Your task to perform on an android device: check storage Image 0: 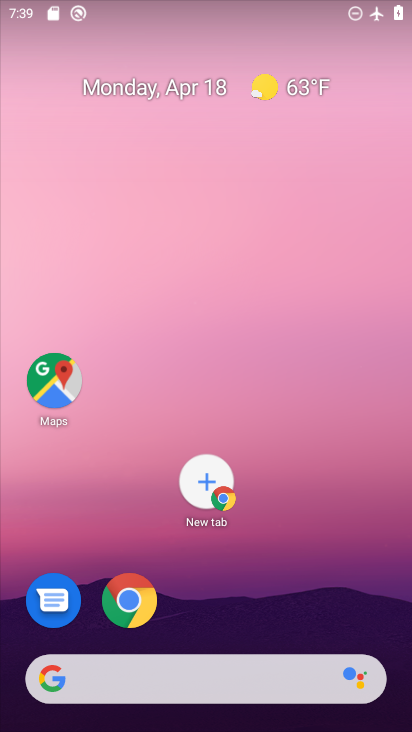
Step 0: drag from (310, 588) to (181, 12)
Your task to perform on an android device: check storage Image 1: 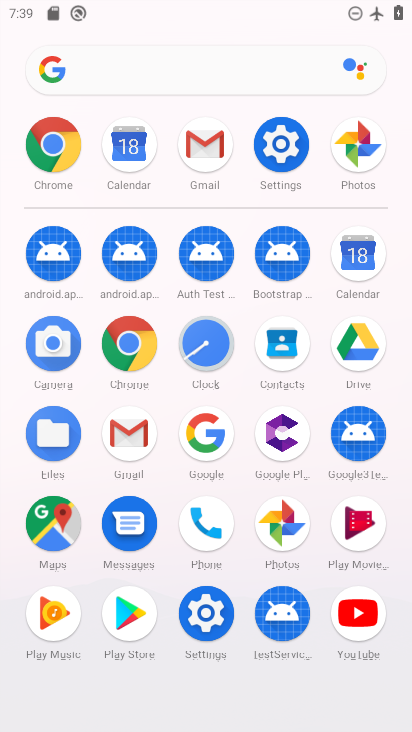
Step 1: click (283, 150)
Your task to perform on an android device: check storage Image 2: 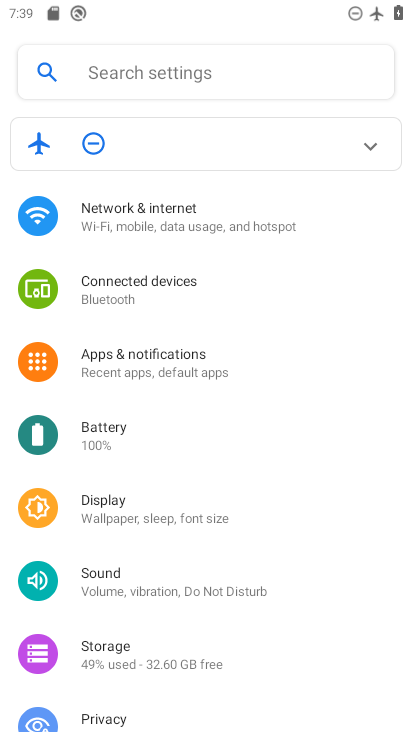
Step 2: click (112, 646)
Your task to perform on an android device: check storage Image 3: 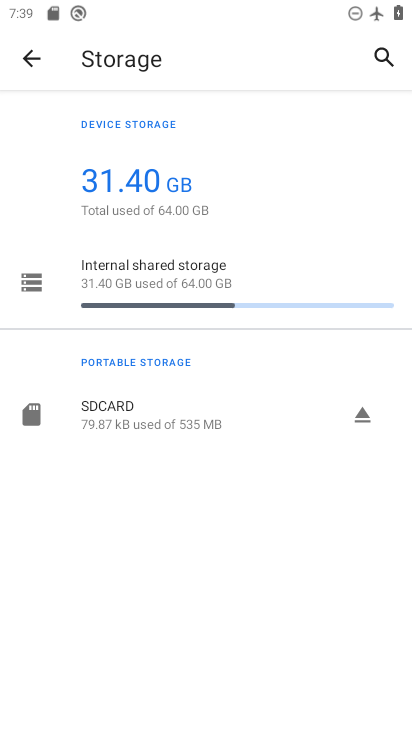
Step 3: task complete